Your task to perform on an android device: delete browsing data in the chrome app Image 0: 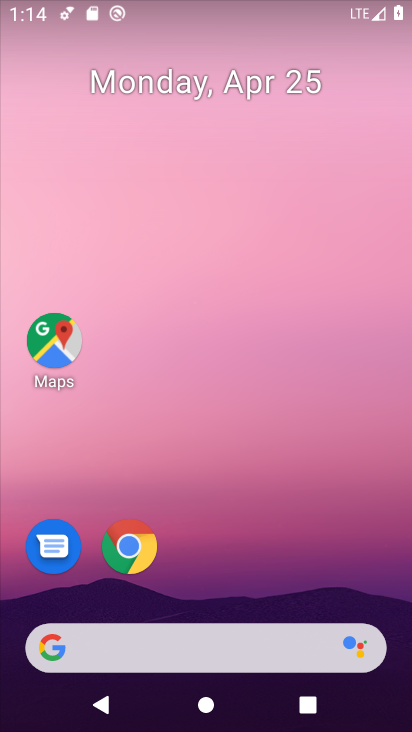
Step 0: drag from (339, 587) to (348, 116)
Your task to perform on an android device: delete browsing data in the chrome app Image 1: 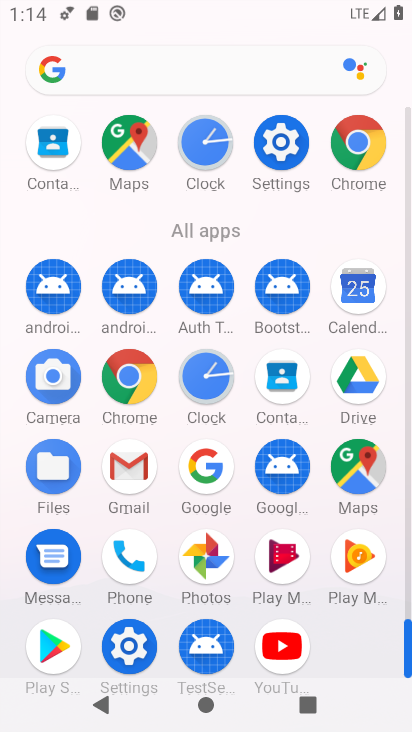
Step 1: click (139, 380)
Your task to perform on an android device: delete browsing data in the chrome app Image 2: 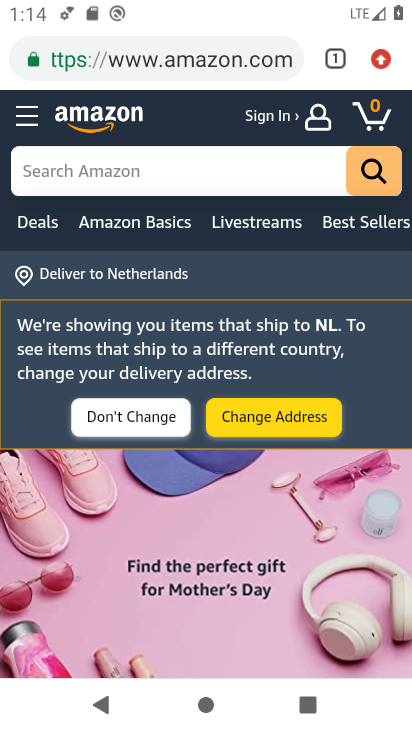
Step 2: click (389, 55)
Your task to perform on an android device: delete browsing data in the chrome app Image 3: 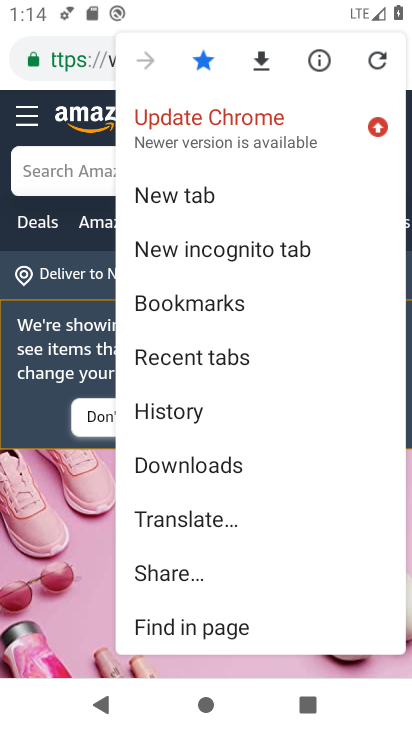
Step 3: drag from (324, 572) to (331, 343)
Your task to perform on an android device: delete browsing data in the chrome app Image 4: 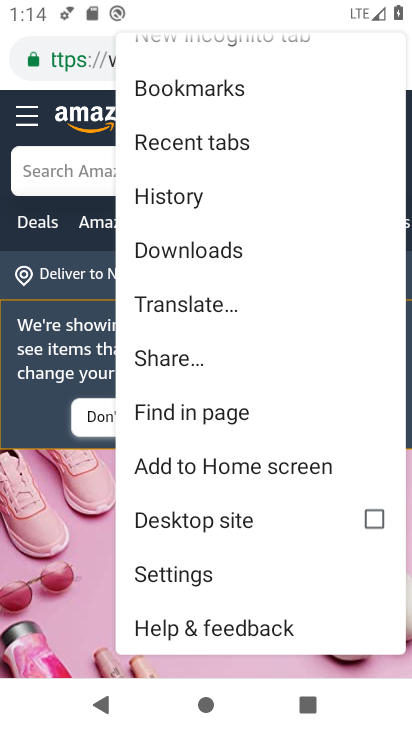
Step 4: click (219, 578)
Your task to perform on an android device: delete browsing data in the chrome app Image 5: 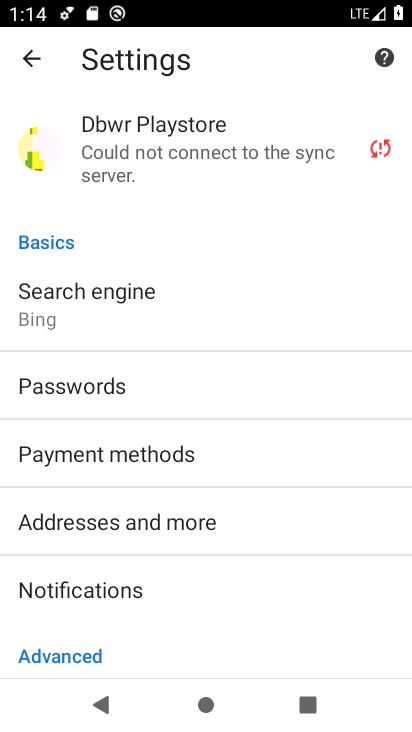
Step 5: drag from (257, 601) to (273, 421)
Your task to perform on an android device: delete browsing data in the chrome app Image 6: 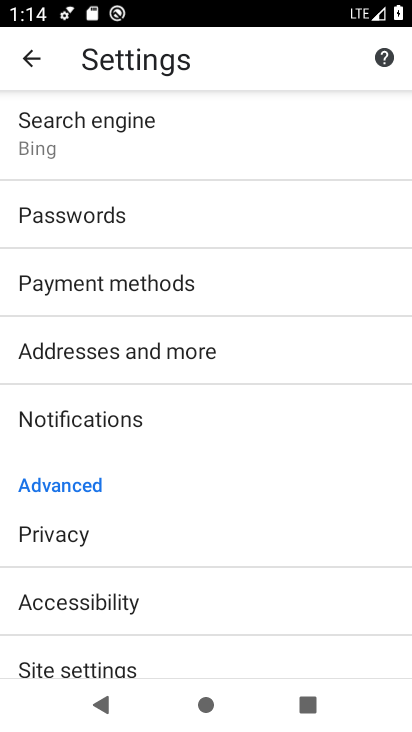
Step 6: drag from (289, 614) to (299, 447)
Your task to perform on an android device: delete browsing data in the chrome app Image 7: 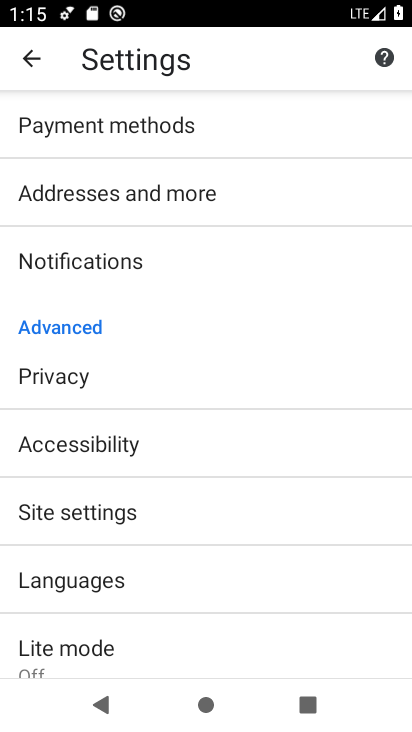
Step 7: click (88, 377)
Your task to perform on an android device: delete browsing data in the chrome app Image 8: 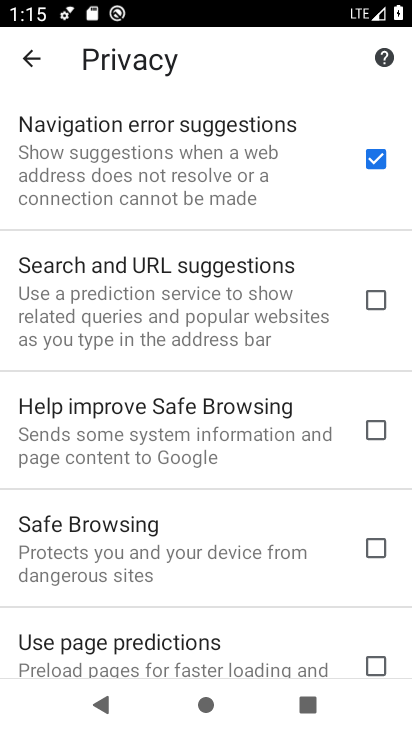
Step 8: drag from (270, 608) to (267, 430)
Your task to perform on an android device: delete browsing data in the chrome app Image 9: 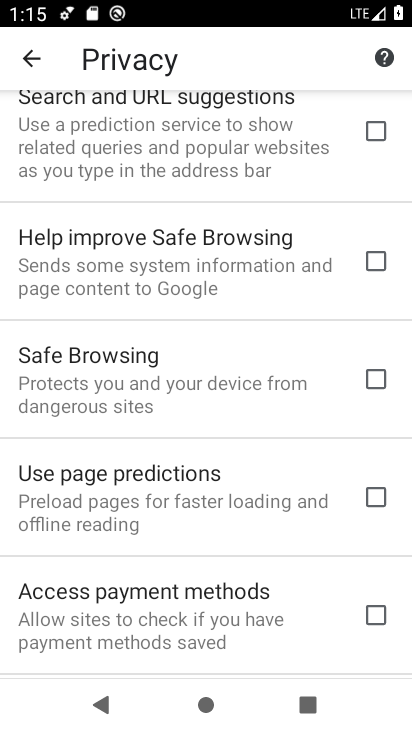
Step 9: drag from (309, 587) to (311, 451)
Your task to perform on an android device: delete browsing data in the chrome app Image 10: 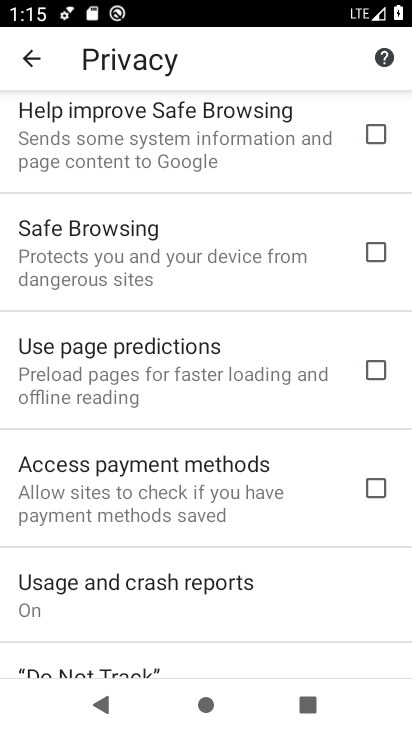
Step 10: drag from (307, 541) to (317, 365)
Your task to perform on an android device: delete browsing data in the chrome app Image 11: 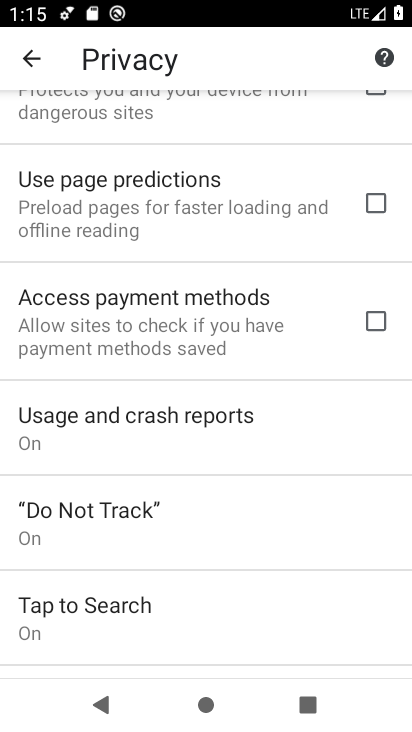
Step 11: drag from (268, 584) to (305, 383)
Your task to perform on an android device: delete browsing data in the chrome app Image 12: 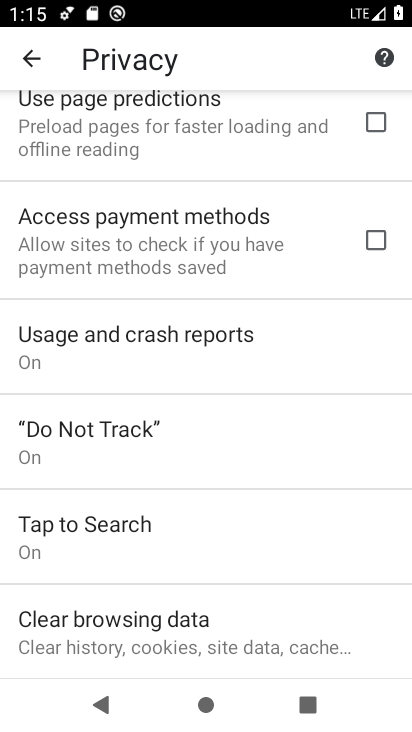
Step 12: click (217, 647)
Your task to perform on an android device: delete browsing data in the chrome app Image 13: 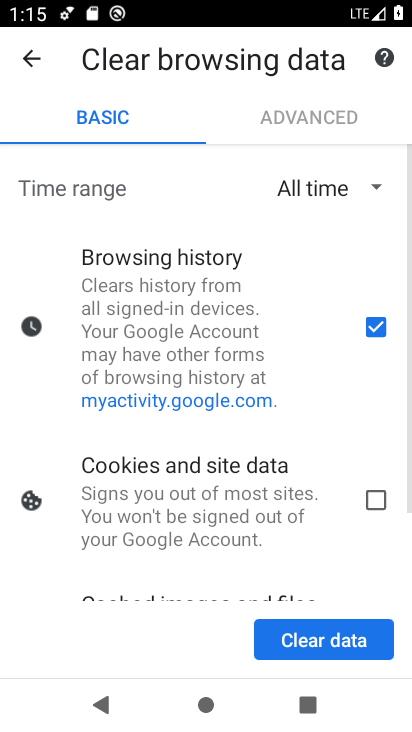
Step 13: click (385, 503)
Your task to perform on an android device: delete browsing data in the chrome app Image 14: 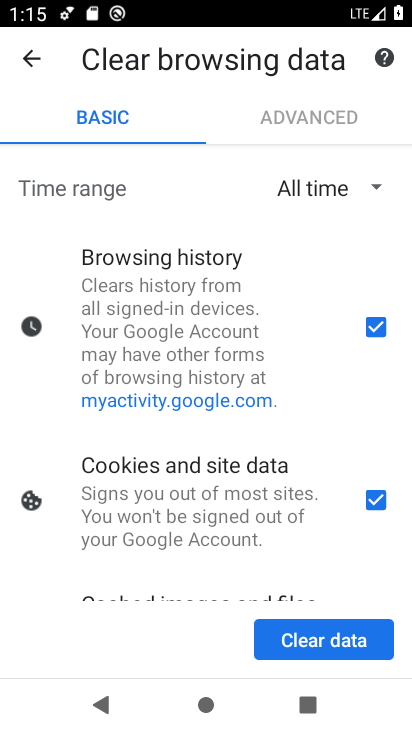
Step 14: click (331, 640)
Your task to perform on an android device: delete browsing data in the chrome app Image 15: 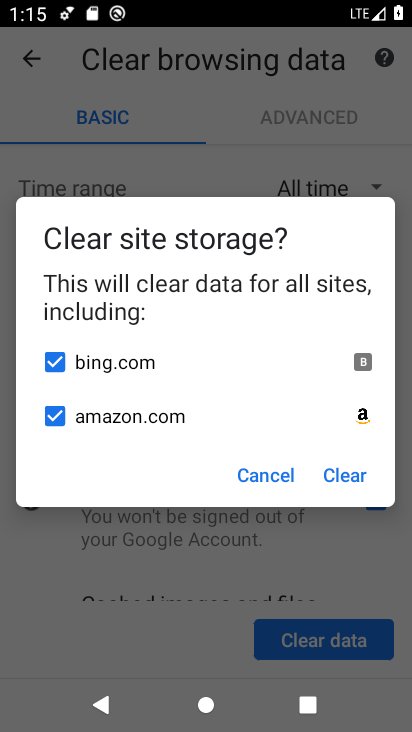
Step 15: click (338, 476)
Your task to perform on an android device: delete browsing data in the chrome app Image 16: 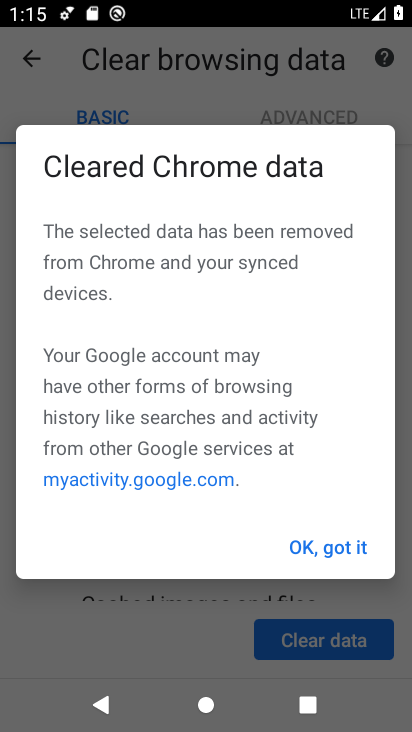
Step 16: click (334, 541)
Your task to perform on an android device: delete browsing data in the chrome app Image 17: 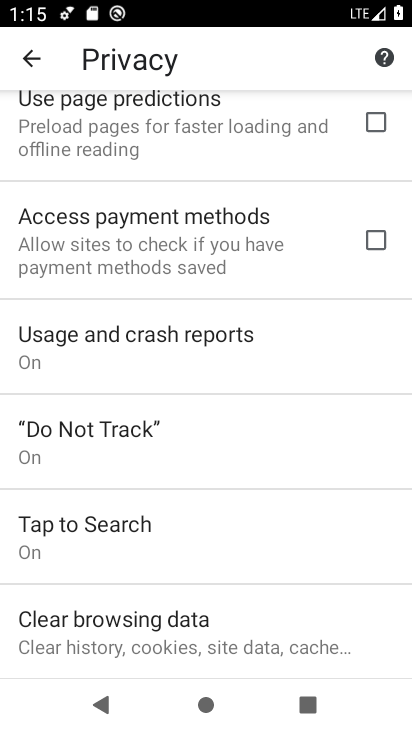
Step 17: task complete